Your task to perform on an android device: Open Yahoo.com Image 0: 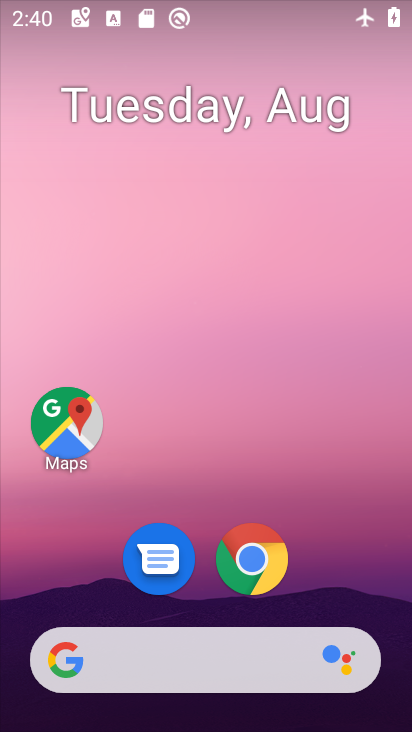
Step 0: click (247, 550)
Your task to perform on an android device: Open Yahoo.com Image 1: 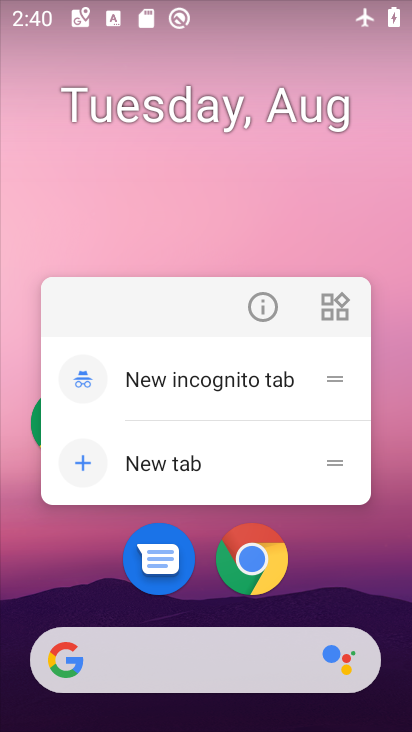
Step 1: click (248, 542)
Your task to perform on an android device: Open Yahoo.com Image 2: 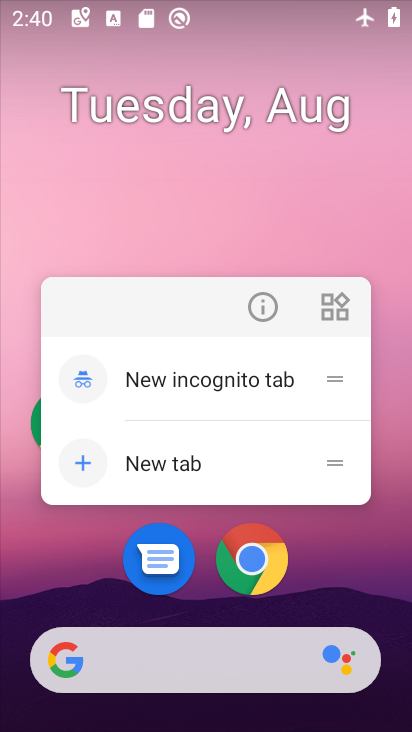
Step 2: click (238, 580)
Your task to perform on an android device: Open Yahoo.com Image 3: 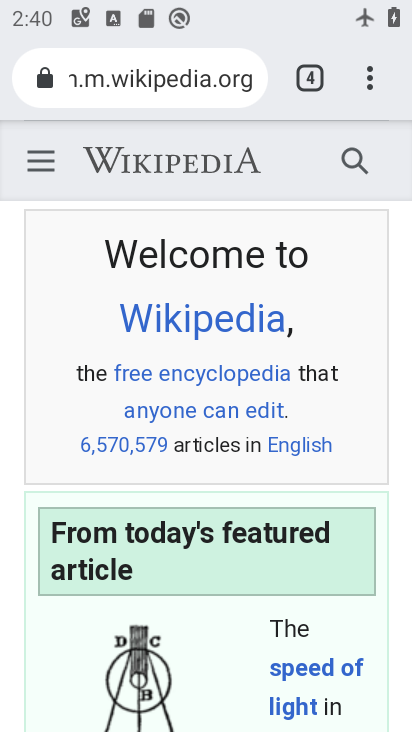
Step 3: click (301, 80)
Your task to perform on an android device: Open Yahoo.com Image 4: 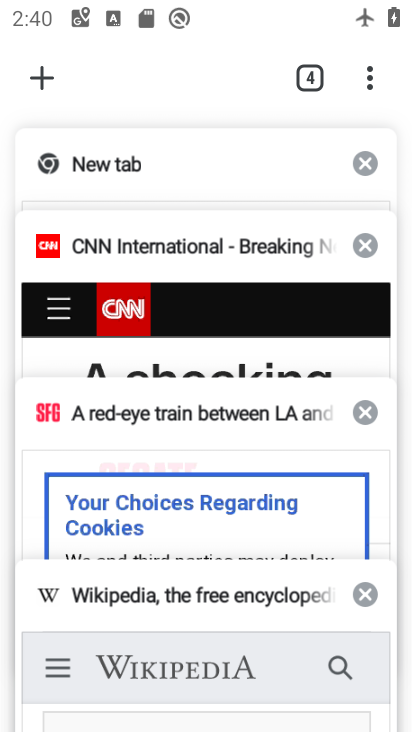
Step 4: click (44, 73)
Your task to perform on an android device: Open Yahoo.com Image 5: 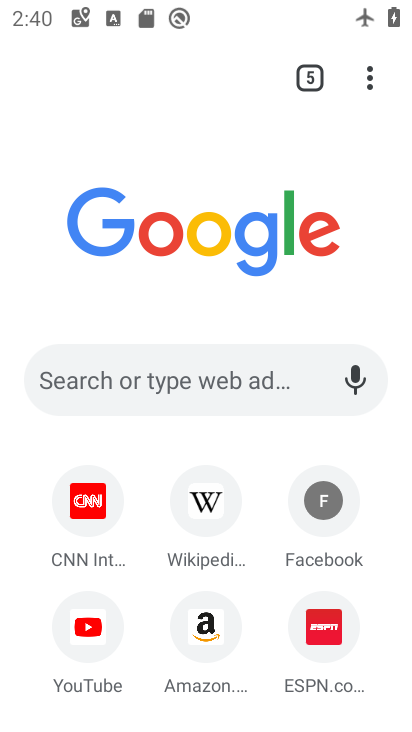
Step 5: drag from (152, 574) to (153, 260)
Your task to perform on an android device: Open Yahoo.com Image 6: 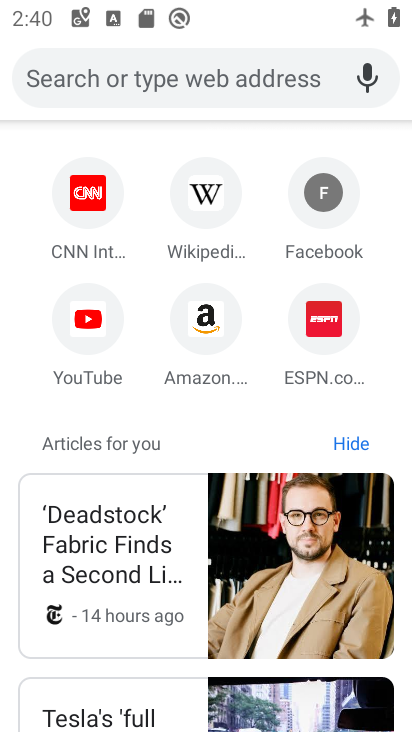
Step 6: click (117, 83)
Your task to perform on an android device: Open Yahoo.com Image 7: 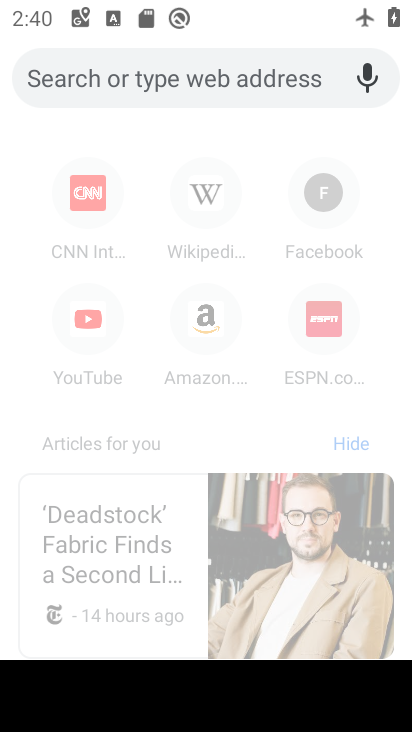
Step 7: type "Yahoo.com"
Your task to perform on an android device: Open Yahoo.com Image 8: 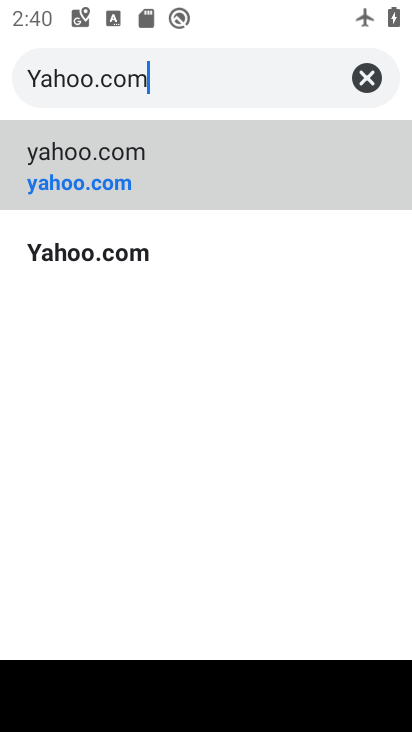
Step 8: type ""
Your task to perform on an android device: Open Yahoo.com Image 9: 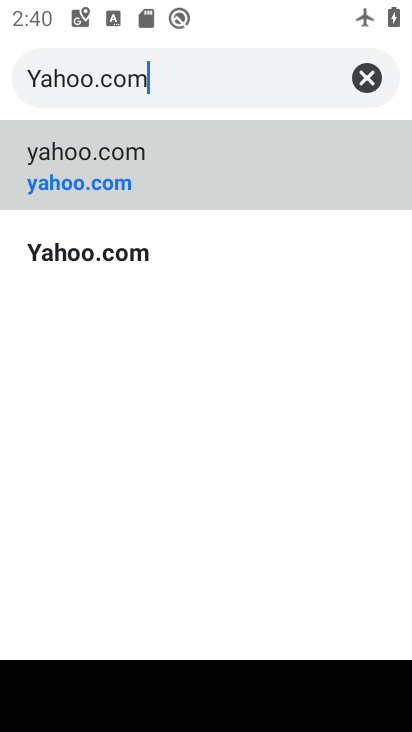
Step 9: click (152, 190)
Your task to perform on an android device: Open Yahoo.com Image 10: 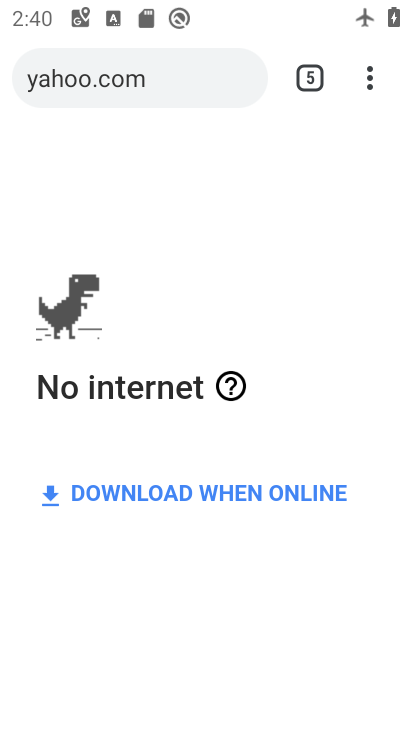
Step 10: task complete